Your task to perform on an android device: Open Youtube and go to the subscriptions tab Image 0: 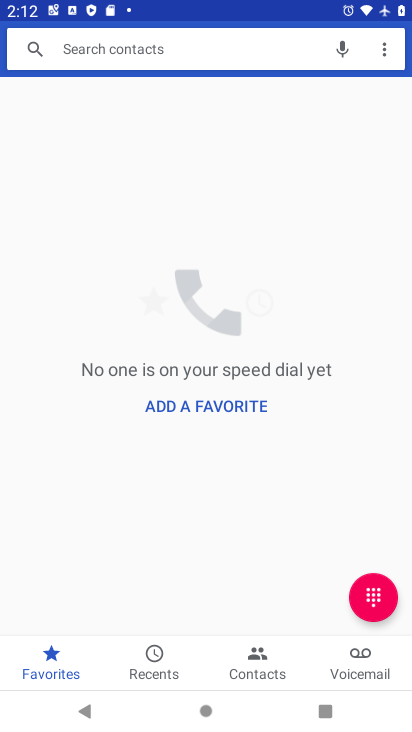
Step 0: press home button
Your task to perform on an android device: Open Youtube and go to the subscriptions tab Image 1: 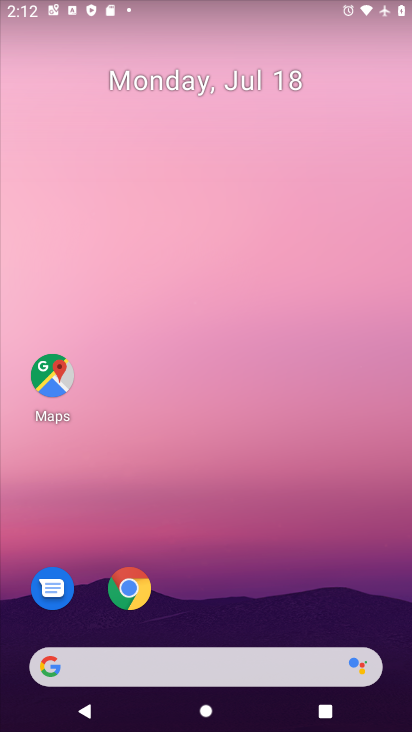
Step 1: drag from (158, 682) to (194, 349)
Your task to perform on an android device: Open Youtube and go to the subscriptions tab Image 2: 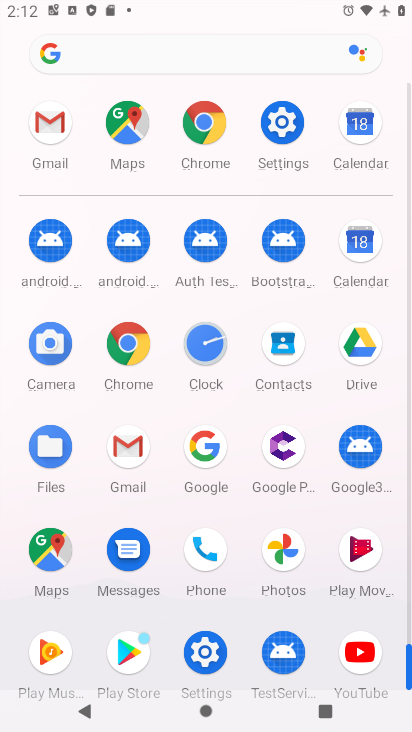
Step 2: click (378, 644)
Your task to perform on an android device: Open Youtube and go to the subscriptions tab Image 3: 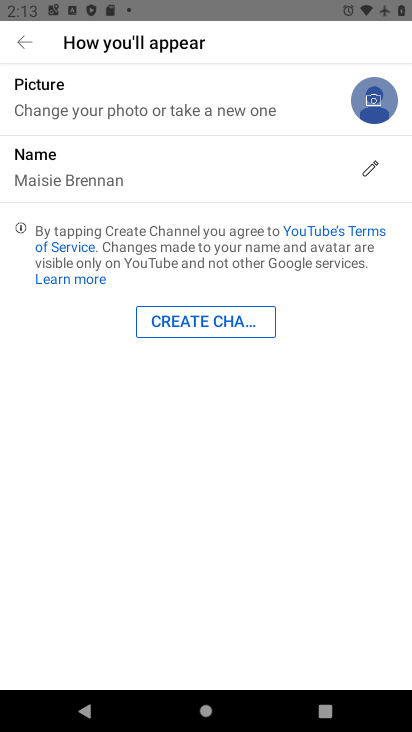
Step 3: click (5, 60)
Your task to perform on an android device: Open Youtube and go to the subscriptions tab Image 4: 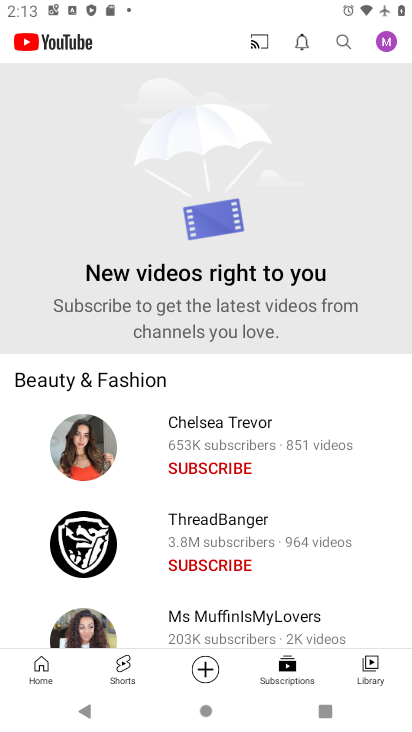
Step 4: click (283, 668)
Your task to perform on an android device: Open Youtube and go to the subscriptions tab Image 5: 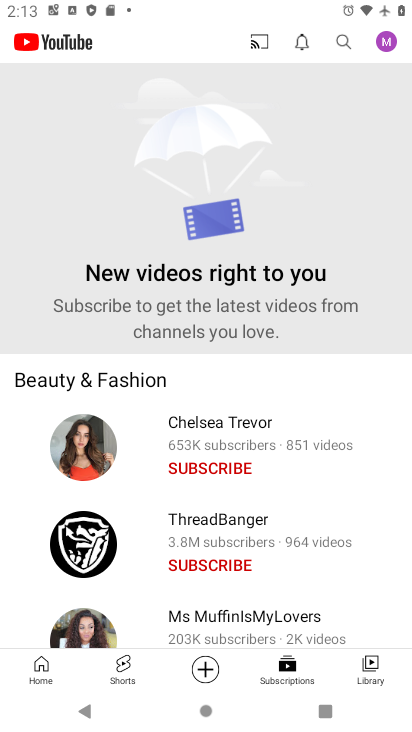
Step 5: task complete